Your task to perform on an android device: What's on my calendar today? Image 0: 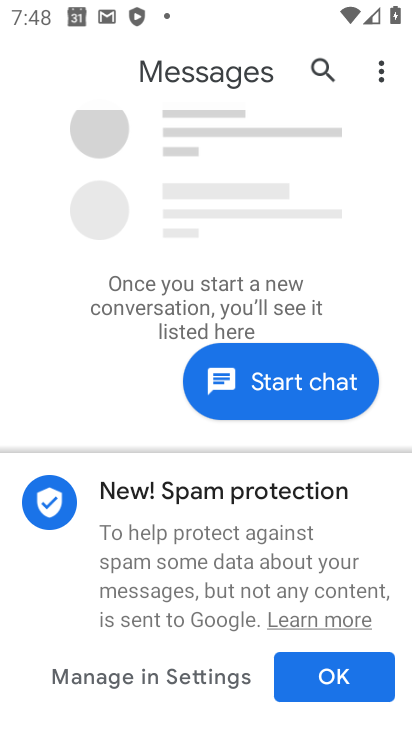
Step 0: press home button
Your task to perform on an android device: What's on my calendar today? Image 1: 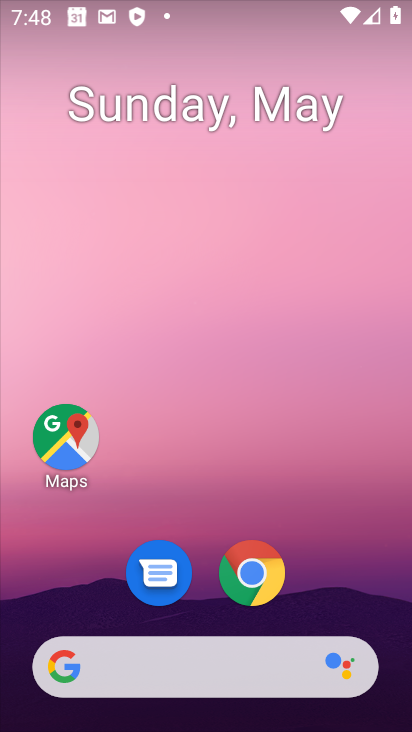
Step 1: drag from (207, 491) to (237, 1)
Your task to perform on an android device: What's on my calendar today? Image 2: 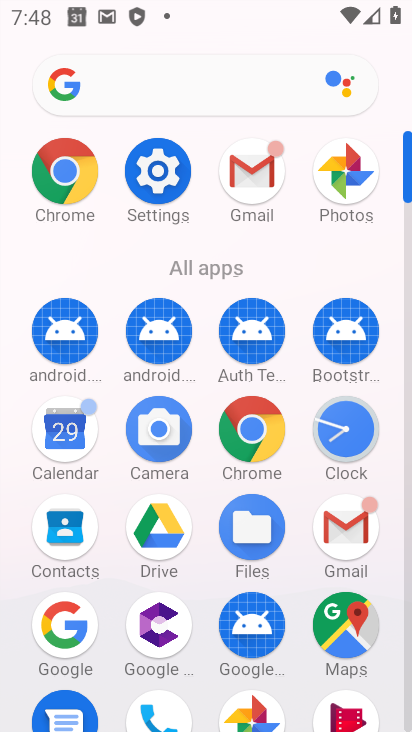
Step 2: click (65, 431)
Your task to perform on an android device: What's on my calendar today? Image 3: 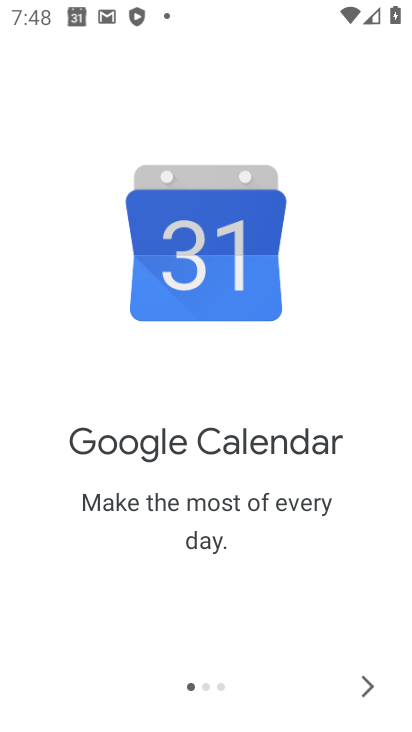
Step 3: click (367, 688)
Your task to perform on an android device: What's on my calendar today? Image 4: 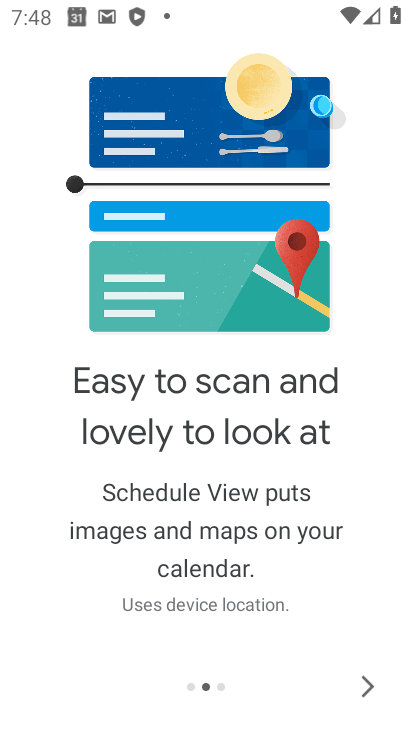
Step 4: click (367, 686)
Your task to perform on an android device: What's on my calendar today? Image 5: 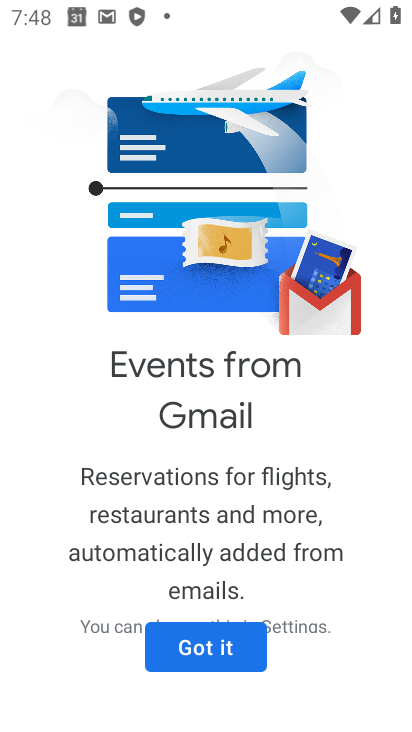
Step 5: click (207, 643)
Your task to perform on an android device: What's on my calendar today? Image 6: 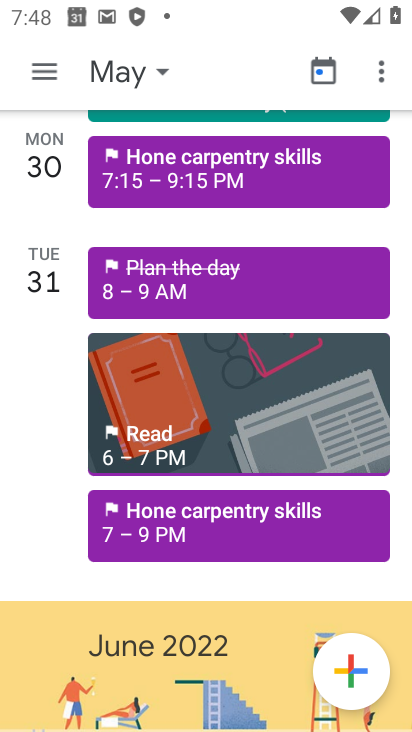
Step 6: task complete